Your task to perform on an android device: snooze an email in the gmail app Image 0: 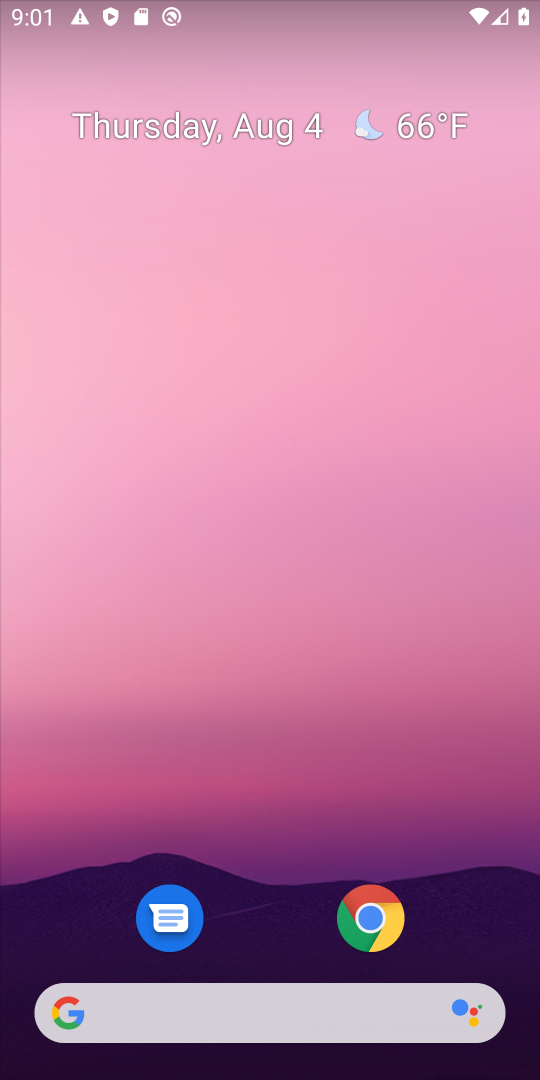
Step 0: press back button
Your task to perform on an android device: snooze an email in the gmail app Image 1: 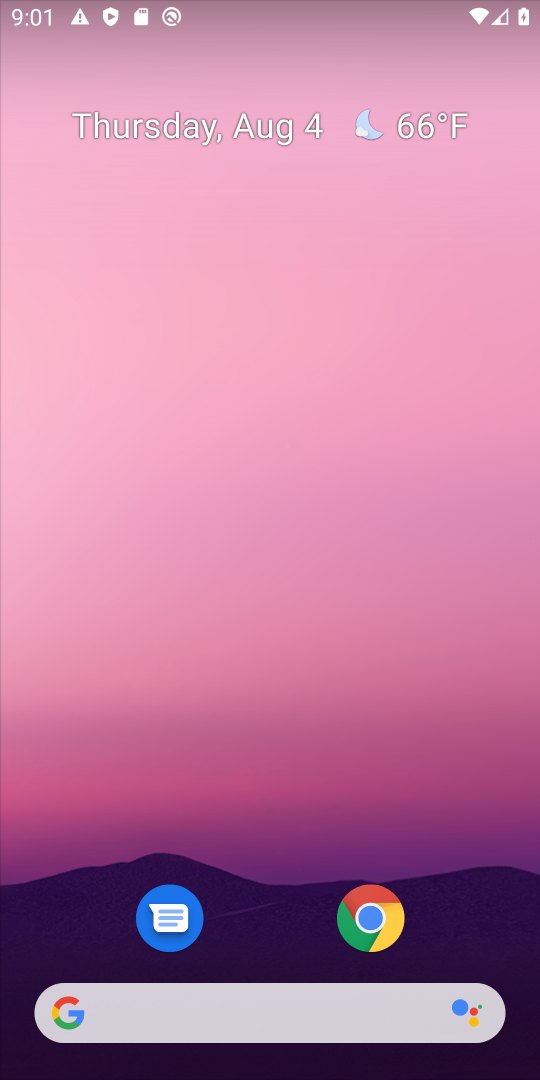
Step 1: press home button
Your task to perform on an android device: snooze an email in the gmail app Image 2: 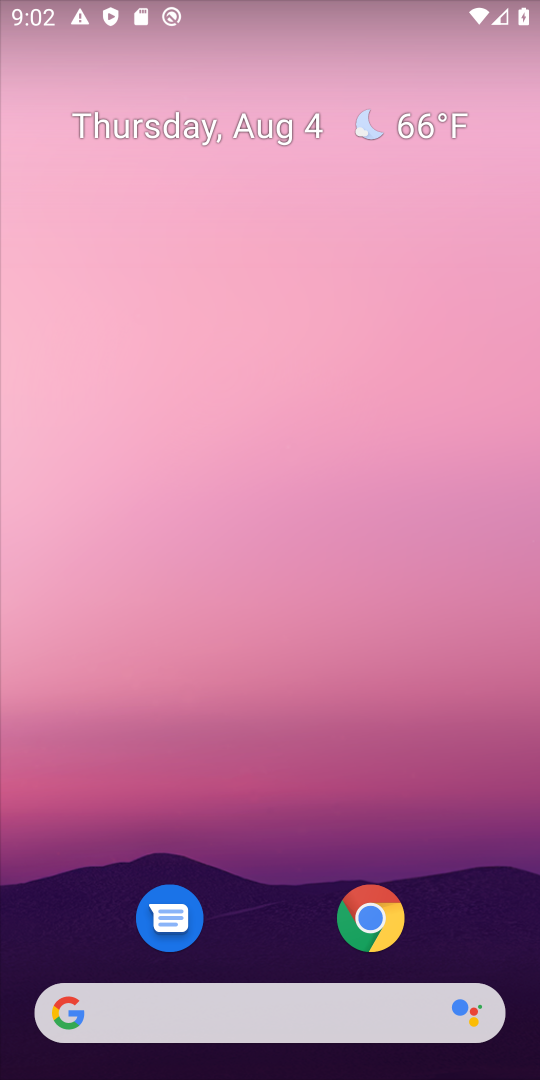
Step 2: drag from (266, 949) to (279, 198)
Your task to perform on an android device: snooze an email in the gmail app Image 3: 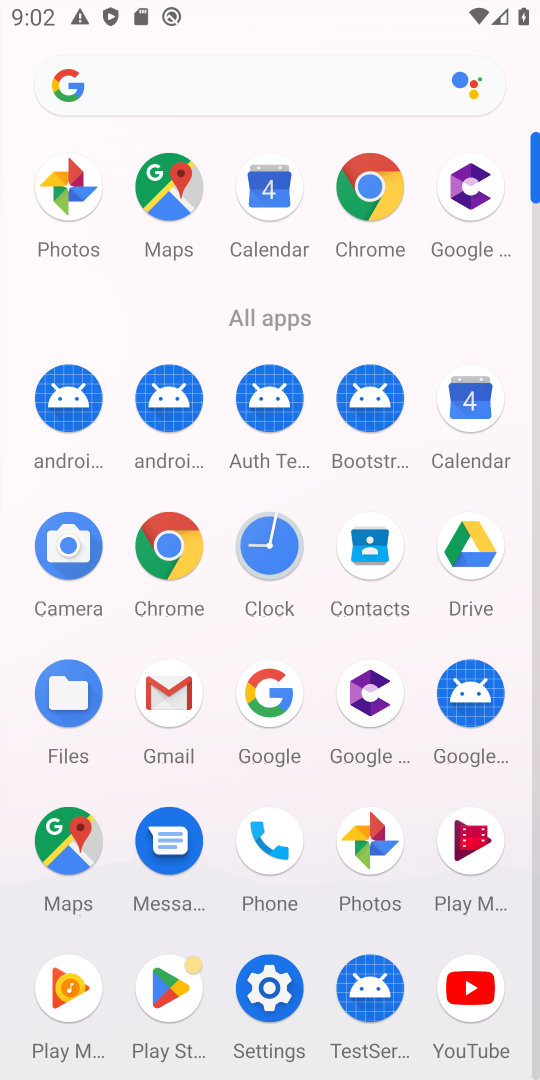
Step 3: click (164, 674)
Your task to perform on an android device: snooze an email in the gmail app Image 4: 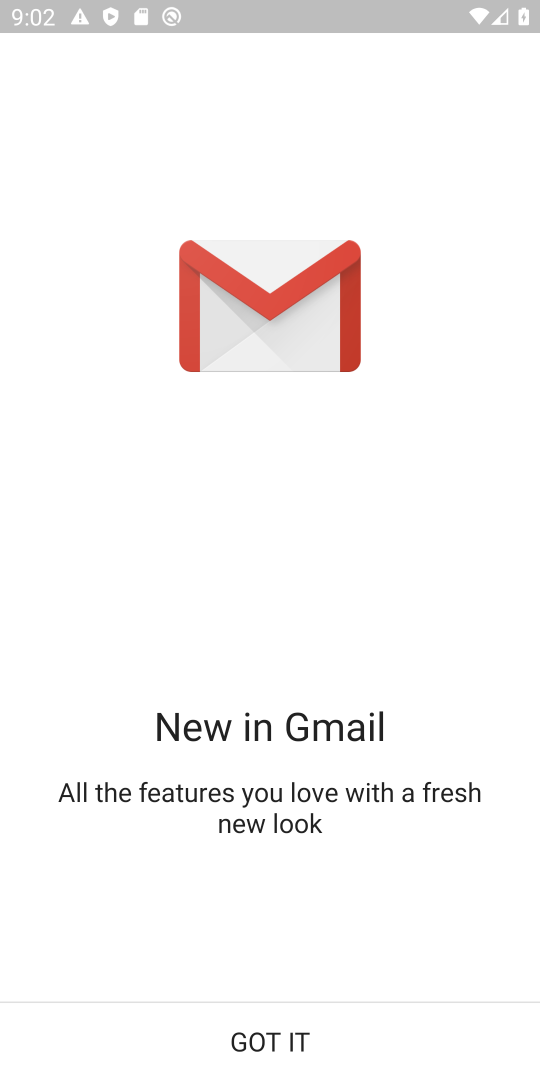
Step 4: click (291, 1042)
Your task to perform on an android device: snooze an email in the gmail app Image 5: 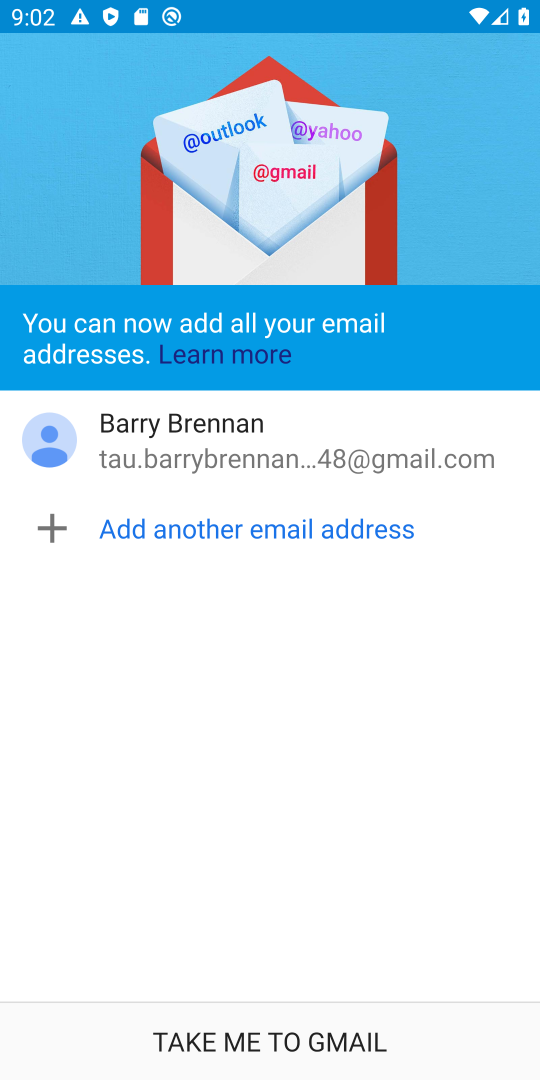
Step 5: click (271, 1039)
Your task to perform on an android device: snooze an email in the gmail app Image 6: 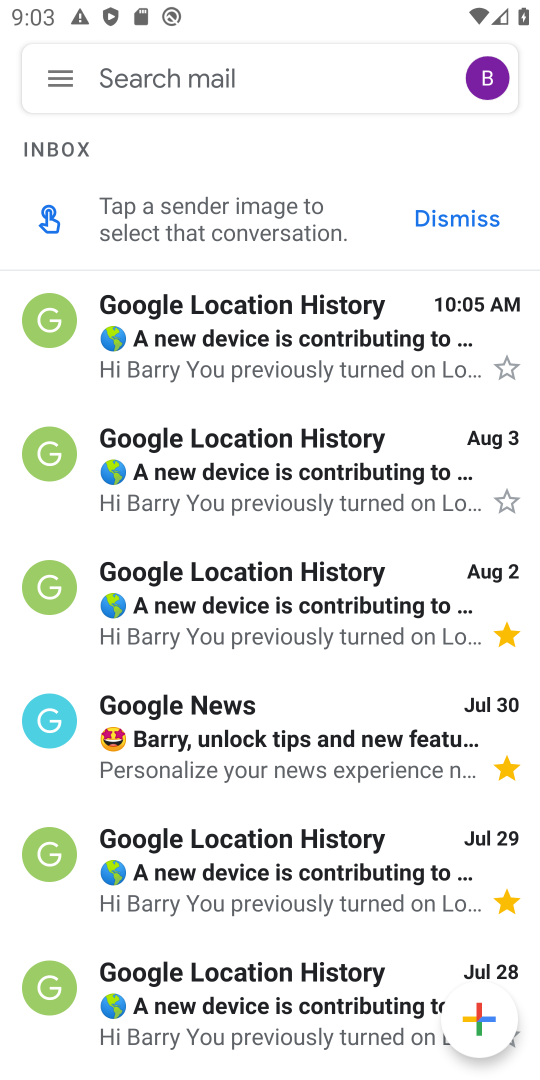
Step 6: click (17, 320)
Your task to perform on an android device: snooze an email in the gmail app Image 7: 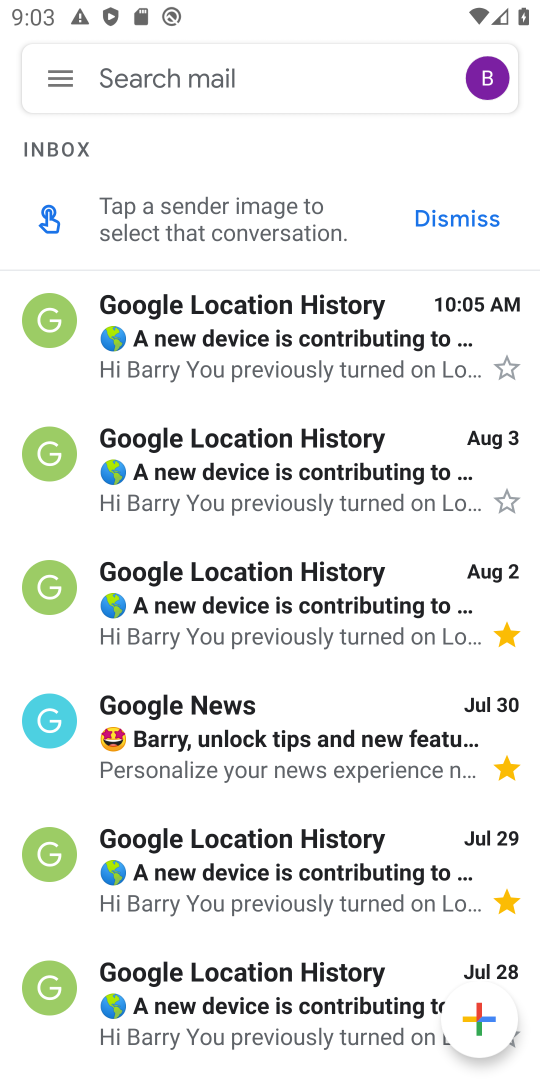
Step 7: click (54, 314)
Your task to perform on an android device: snooze an email in the gmail app Image 8: 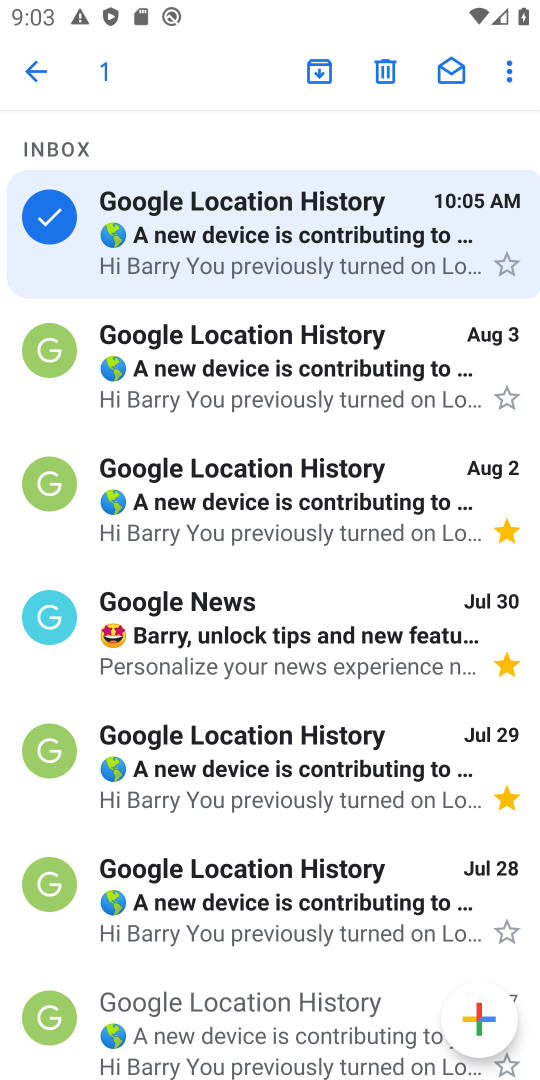
Step 8: click (505, 68)
Your task to perform on an android device: snooze an email in the gmail app Image 9: 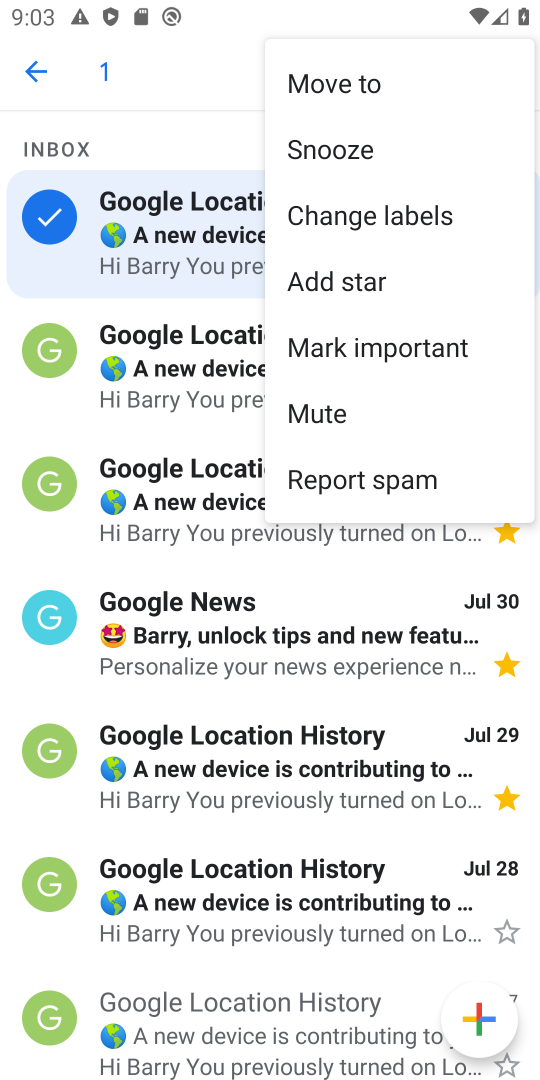
Step 9: click (353, 151)
Your task to perform on an android device: snooze an email in the gmail app Image 10: 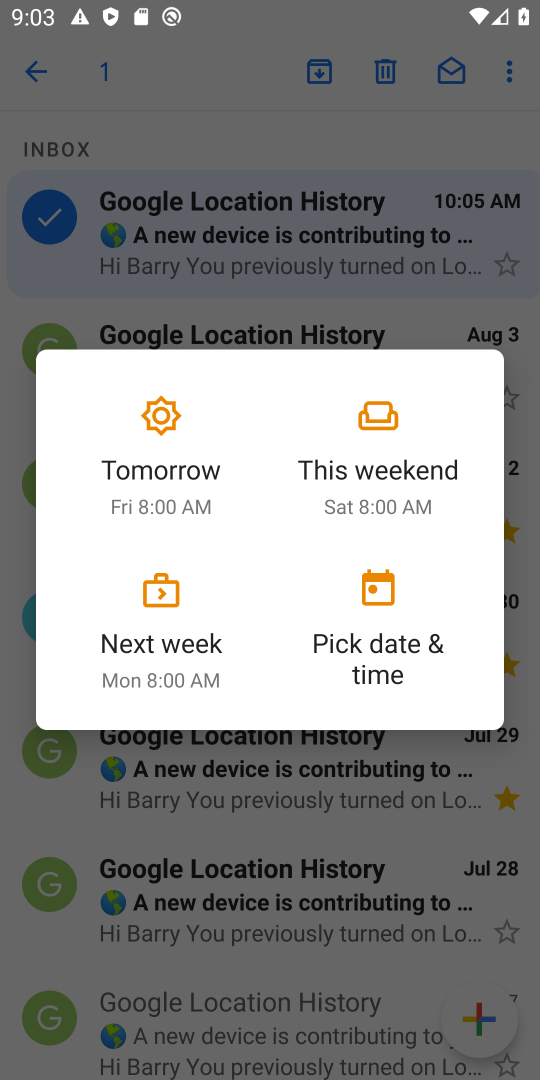
Step 10: click (364, 440)
Your task to perform on an android device: snooze an email in the gmail app Image 11: 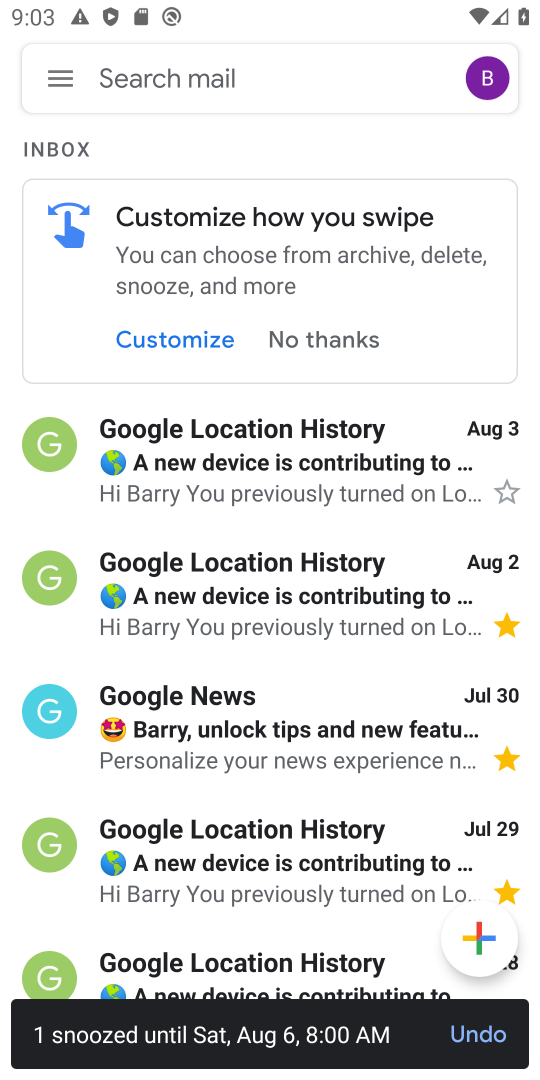
Step 11: task complete